Your task to perform on an android device: see sites visited before in the chrome app Image 0: 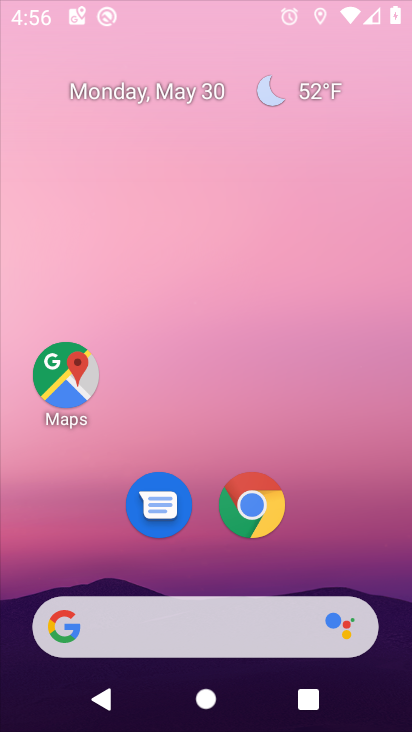
Step 0: press home button
Your task to perform on an android device: see sites visited before in the chrome app Image 1: 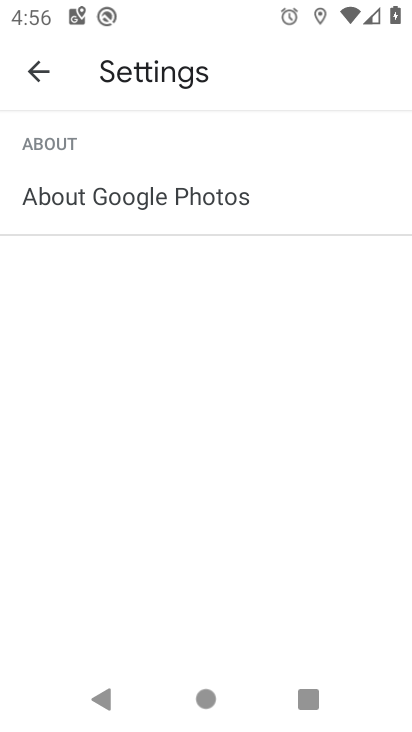
Step 1: drag from (358, 540) to (341, 24)
Your task to perform on an android device: see sites visited before in the chrome app Image 2: 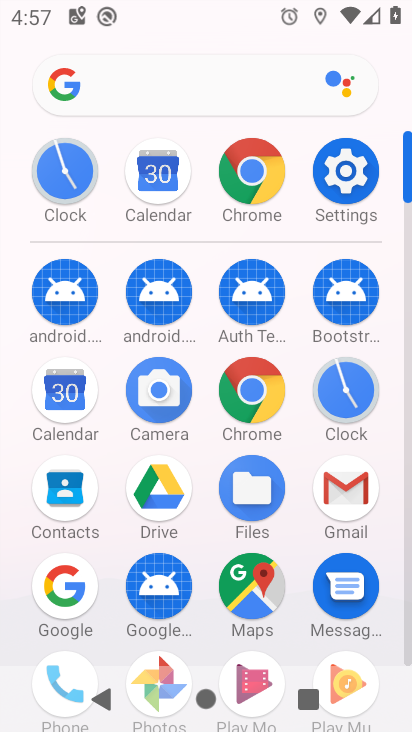
Step 2: click (235, 407)
Your task to perform on an android device: see sites visited before in the chrome app Image 3: 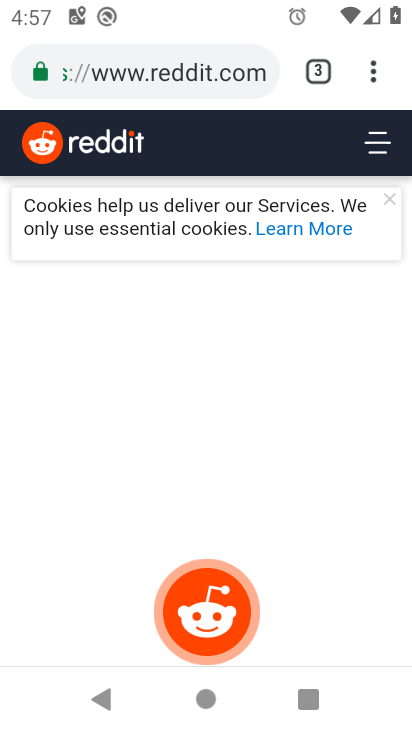
Step 3: task complete